Your task to perform on an android device: toggle translation in the chrome app Image 0: 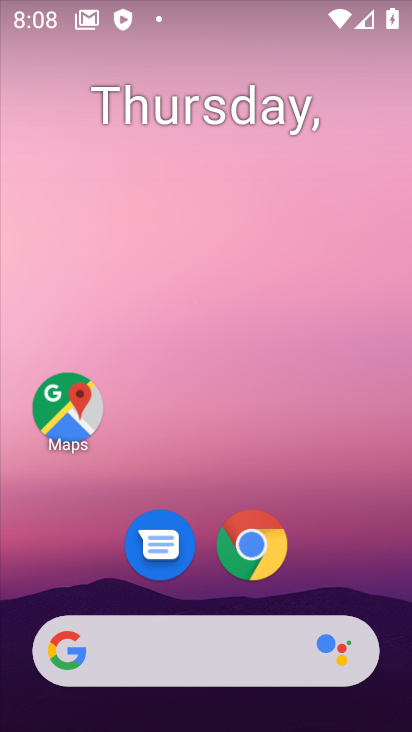
Step 0: click (245, 541)
Your task to perform on an android device: toggle translation in the chrome app Image 1: 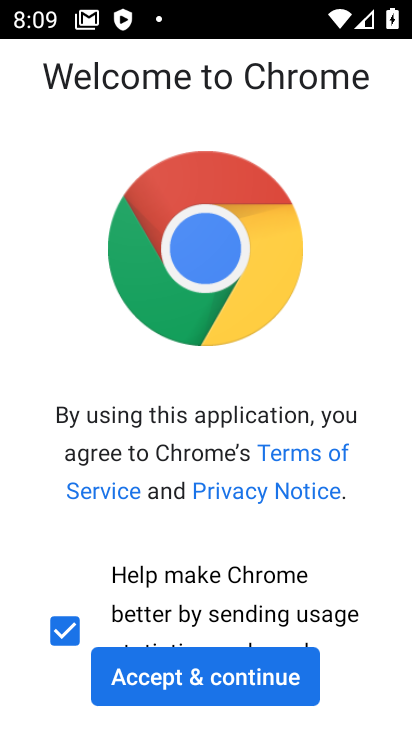
Step 1: click (230, 657)
Your task to perform on an android device: toggle translation in the chrome app Image 2: 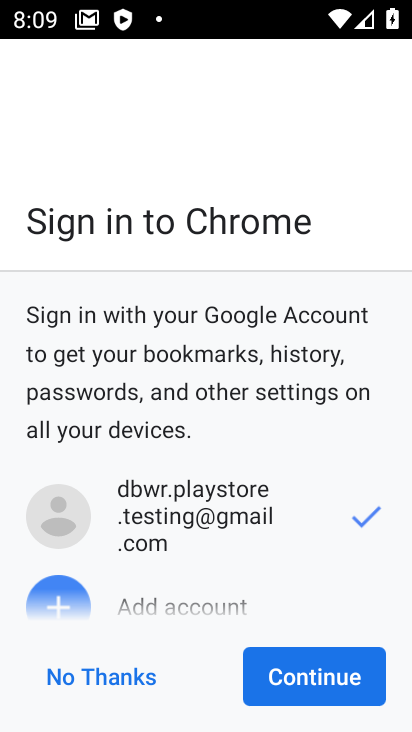
Step 2: click (230, 657)
Your task to perform on an android device: toggle translation in the chrome app Image 3: 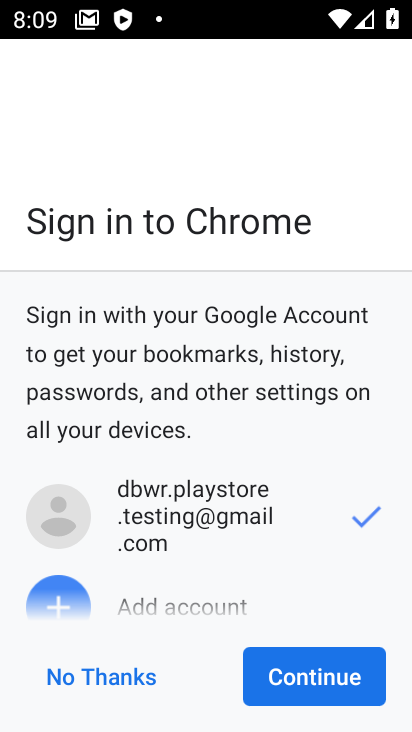
Step 3: click (316, 674)
Your task to perform on an android device: toggle translation in the chrome app Image 4: 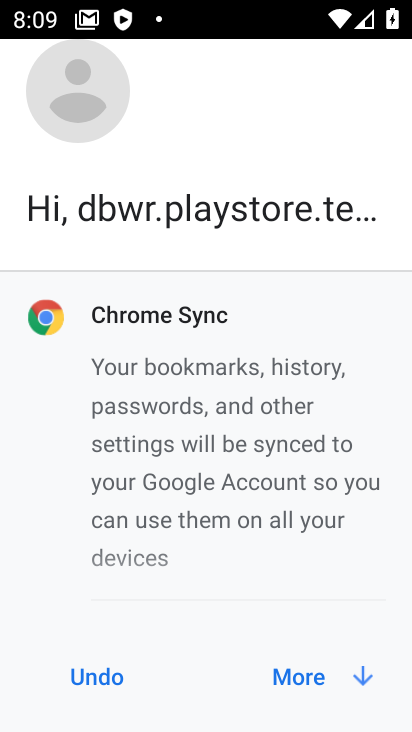
Step 4: click (316, 674)
Your task to perform on an android device: toggle translation in the chrome app Image 5: 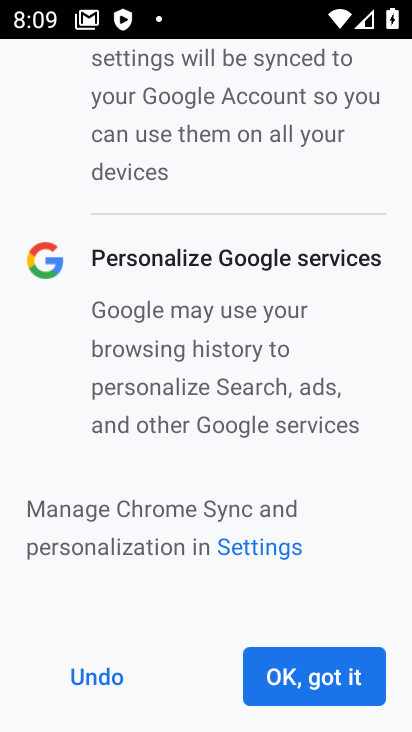
Step 5: click (316, 674)
Your task to perform on an android device: toggle translation in the chrome app Image 6: 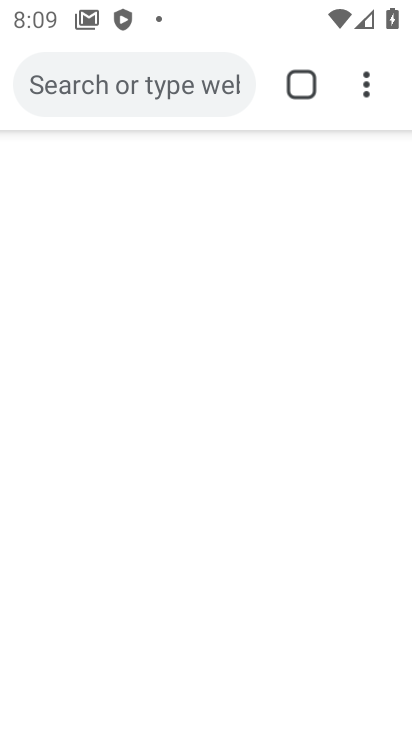
Step 6: click (369, 86)
Your task to perform on an android device: toggle translation in the chrome app Image 7: 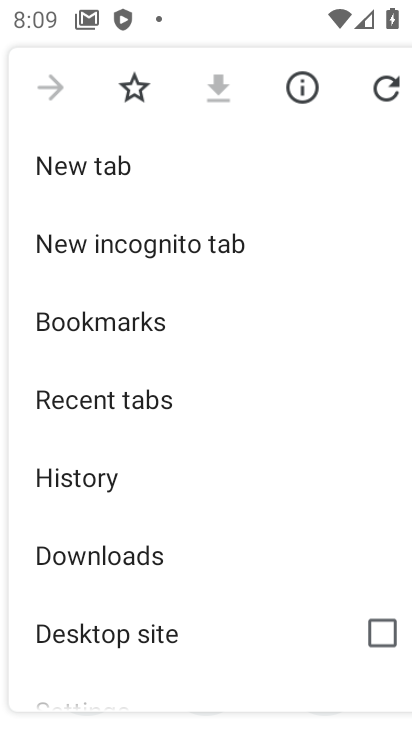
Step 7: drag from (81, 675) to (204, 176)
Your task to perform on an android device: toggle translation in the chrome app Image 8: 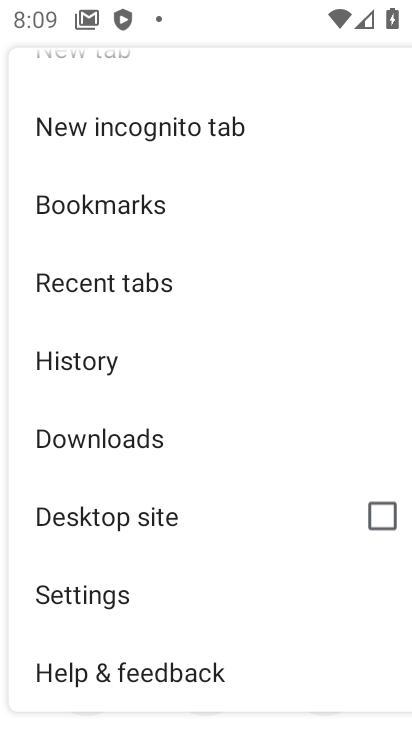
Step 8: click (51, 607)
Your task to perform on an android device: toggle translation in the chrome app Image 9: 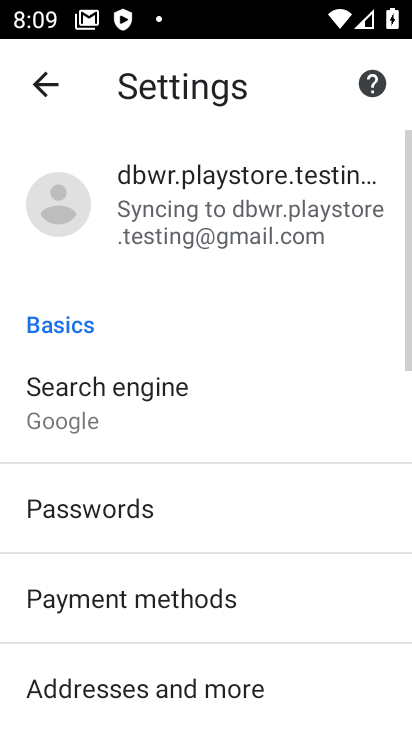
Step 9: drag from (191, 575) to (294, 31)
Your task to perform on an android device: toggle translation in the chrome app Image 10: 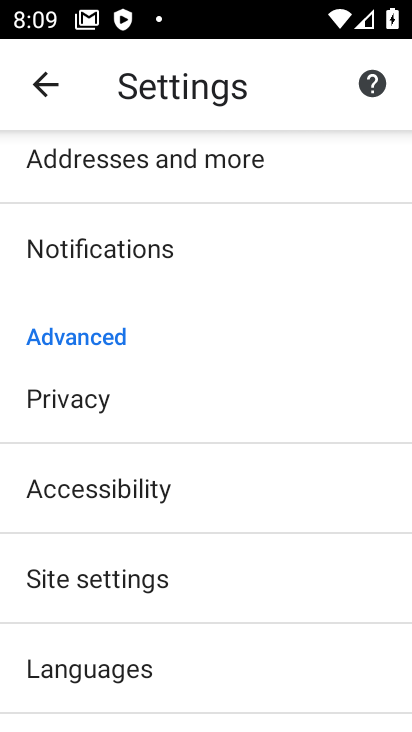
Step 10: click (147, 636)
Your task to perform on an android device: toggle translation in the chrome app Image 11: 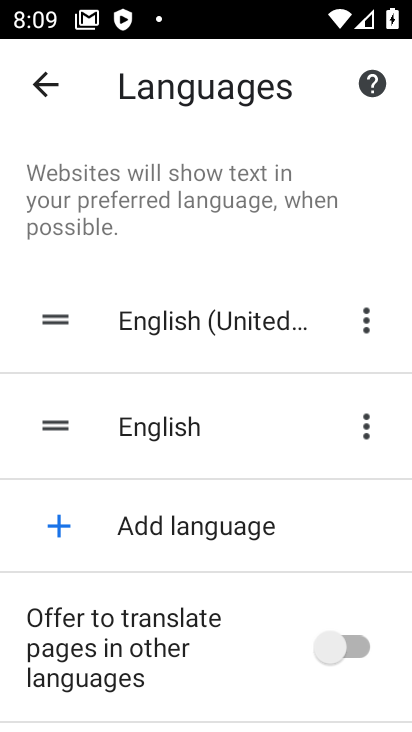
Step 11: click (358, 638)
Your task to perform on an android device: toggle translation in the chrome app Image 12: 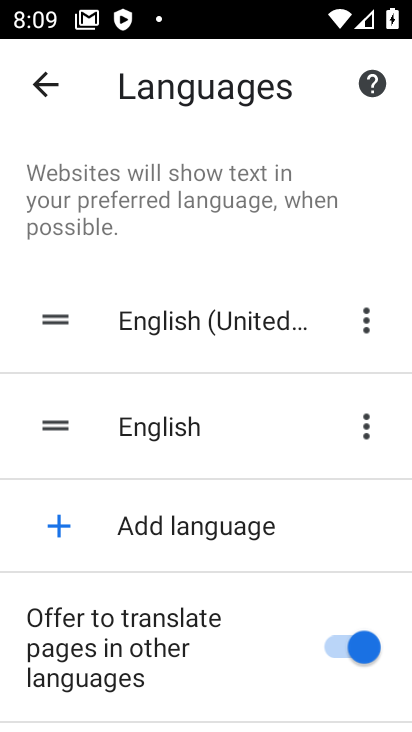
Step 12: click (358, 638)
Your task to perform on an android device: toggle translation in the chrome app Image 13: 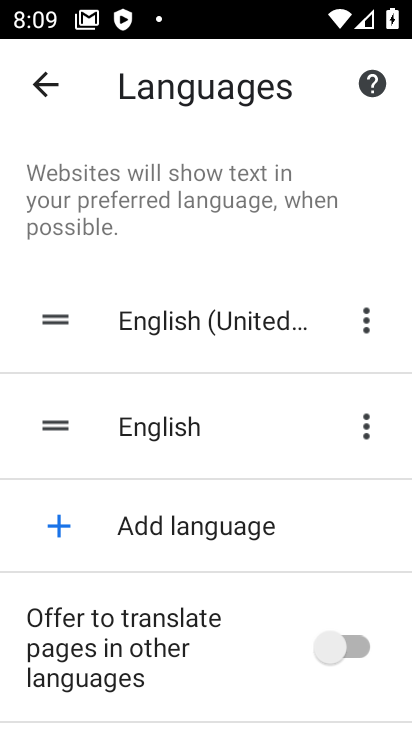
Step 13: task complete